Your task to perform on an android device: toggle location history Image 0: 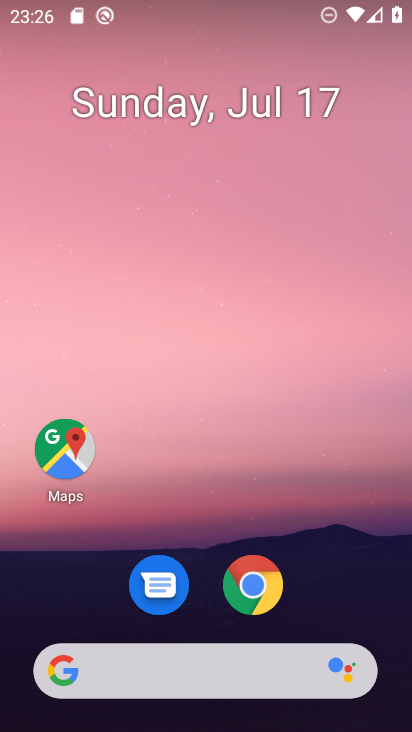
Step 0: drag from (195, 689) to (368, 58)
Your task to perform on an android device: toggle location history Image 1: 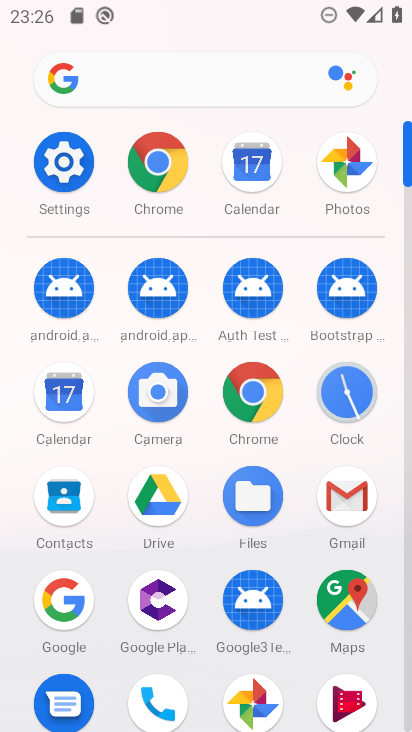
Step 1: click (347, 620)
Your task to perform on an android device: toggle location history Image 2: 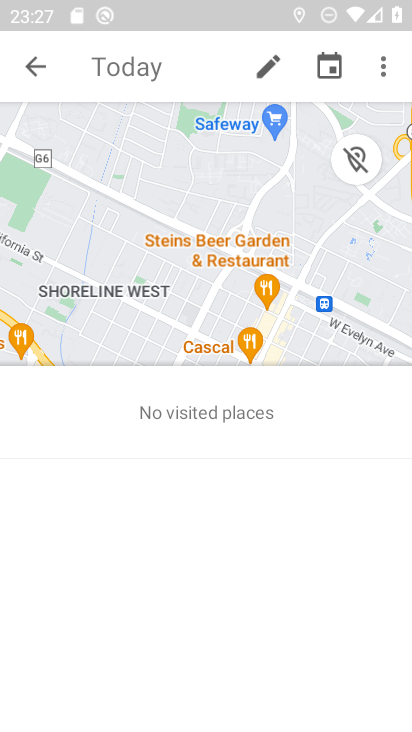
Step 2: click (385, 70)
Your task to perform on an android device: toggle location history Image 3: 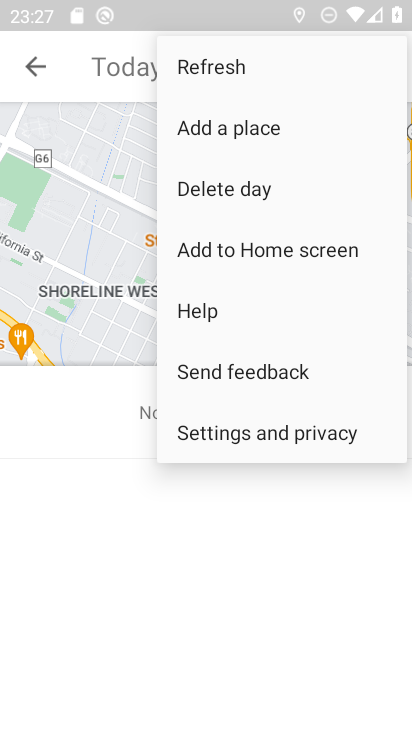
Step 3: click (238, 430)
Your task to perform on an android device: toggle location history Image 4: 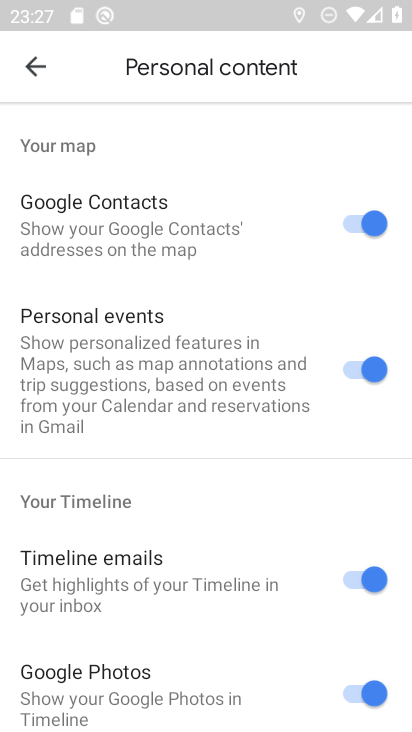
Step 4: drag from (189, 611) to (249, 112)
Your task to perform on an android device: toggle location history Image 5: 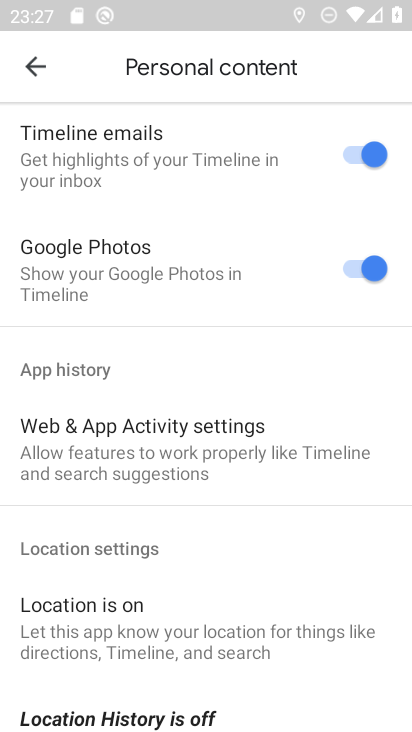
Step 5: drag from (224, 679) to (275, 268)
Your task to perform on an android device: toggle location history Image 6: 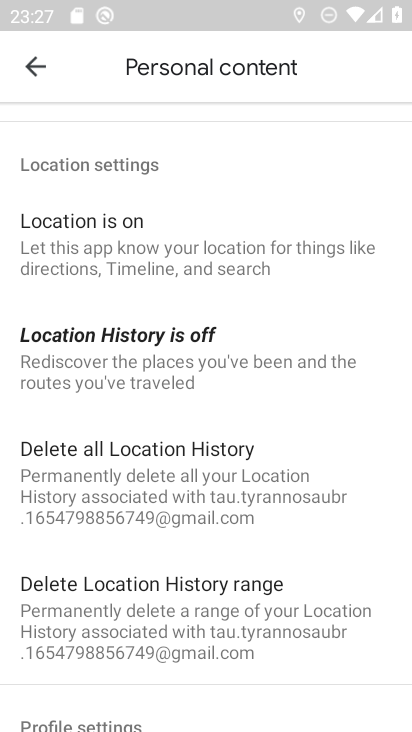
Step 6: click (154, 343)
Your task to perform on an android device: toggle location history Image 7: 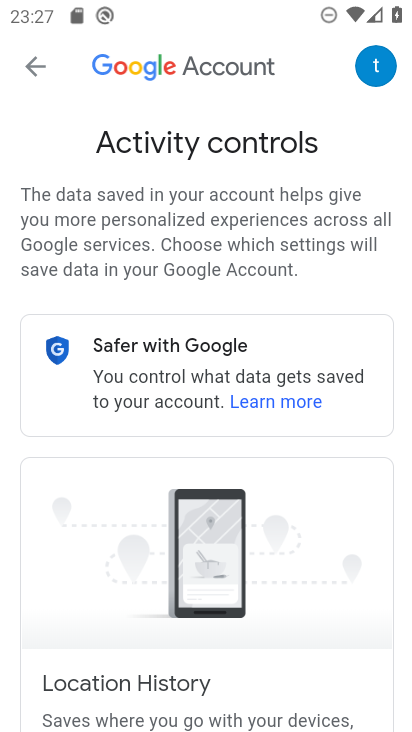
Step 7: drag from (251, 611) to (233, 2)
Your task to perform on an android device: toggle location history Image 8: 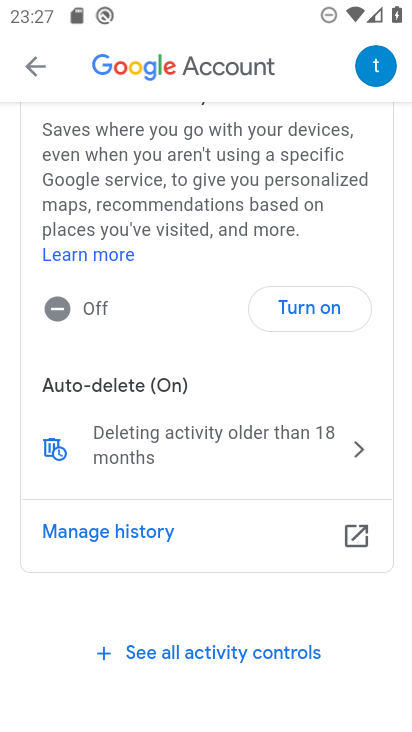
Step 8: click (315, 302)
Your task to perform on an android device: toggle location history Image 9: 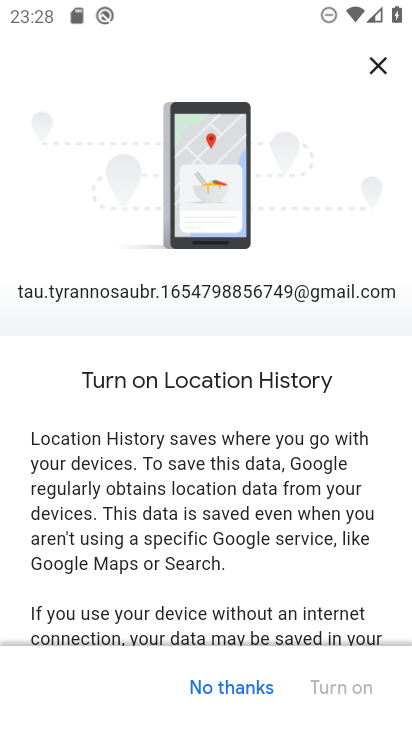
Step 9: drag from (187, 583) to (224, 146)
Your task to perform on an android device: toggle location history Image 10: 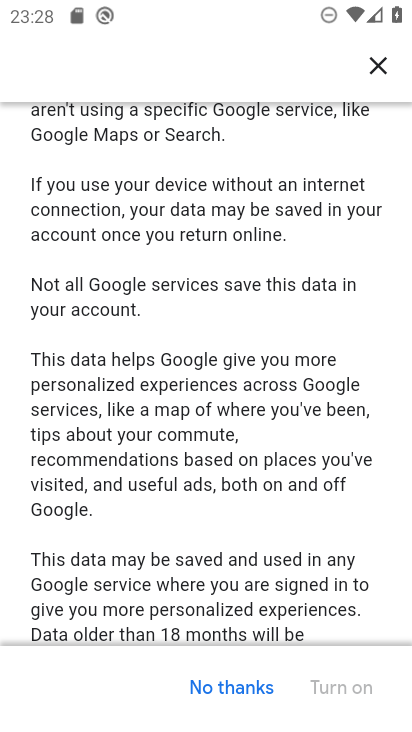
Step 10: drag from (237, 577) to (195, 17)
Your task to perform on an android device: toggle location history Image 11: 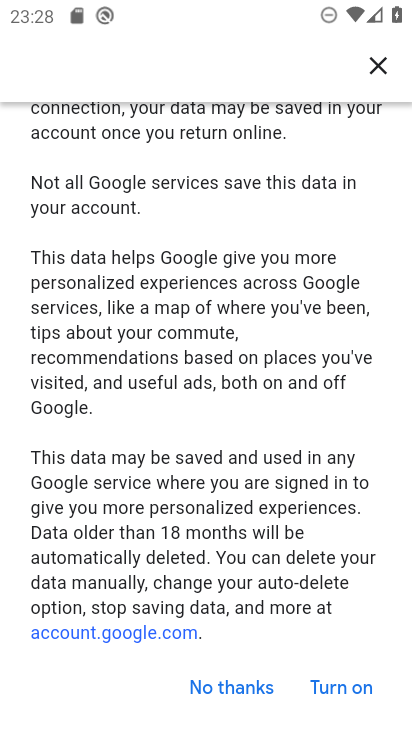
Step 11: click (349, 692)
Your task to perform on an android device: toggle location history Image 12: 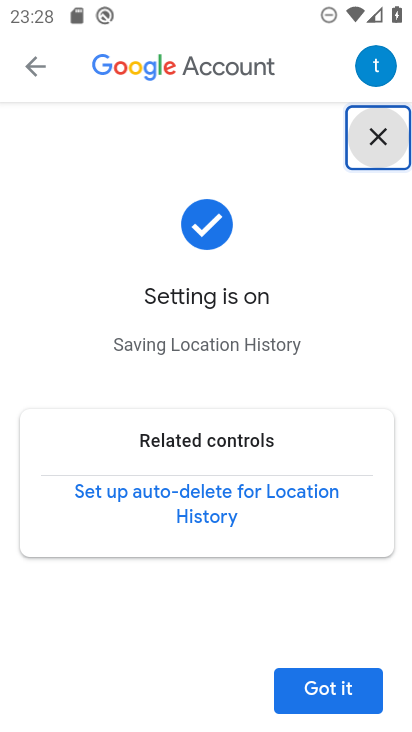
Step 12: click (329, 697)
Your task to perform on an android device: toggle location history Image 13: 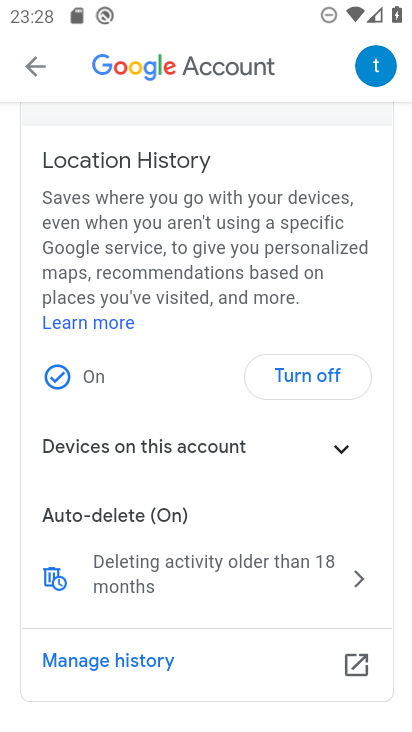
Step 13: task complete